Your task to perform on an android device: delete a single message in the gmail app Image 0: 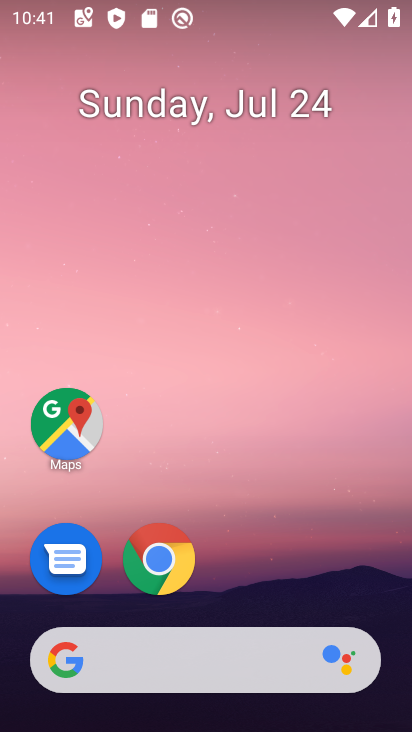
Step 0: drag from (252, 608) to (360, 5)
Your task to perform on an android device: delete a single message in the gmail app Image 1: 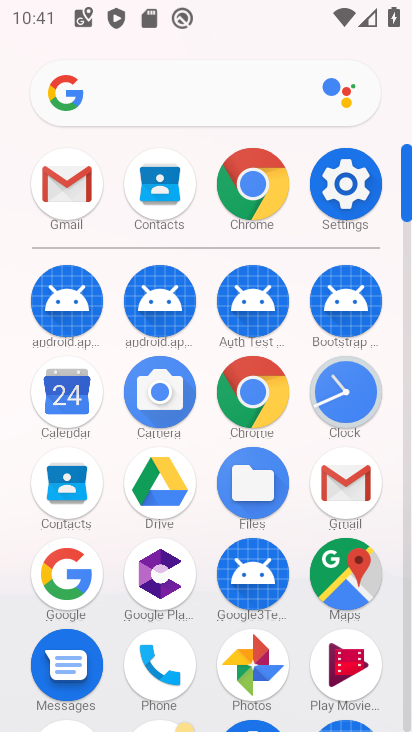
Step 1: click (72, 180)
Your task to perform on an android device: delete a single message in the gmail app Image 2: 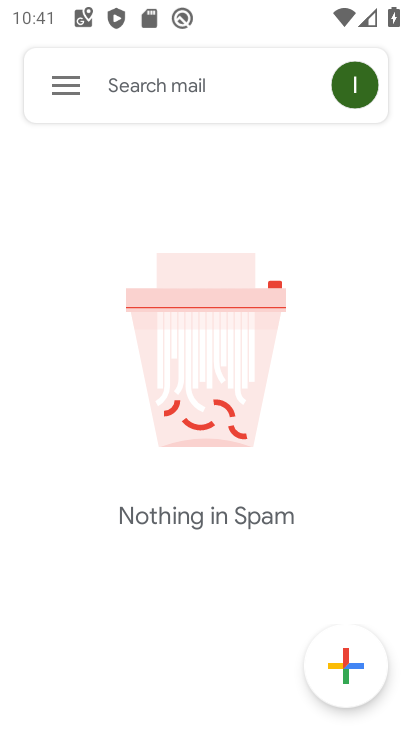
Step 2: click (63, 97)
Your task to perform on an android device: delete a single message in the gmail app Image 3: 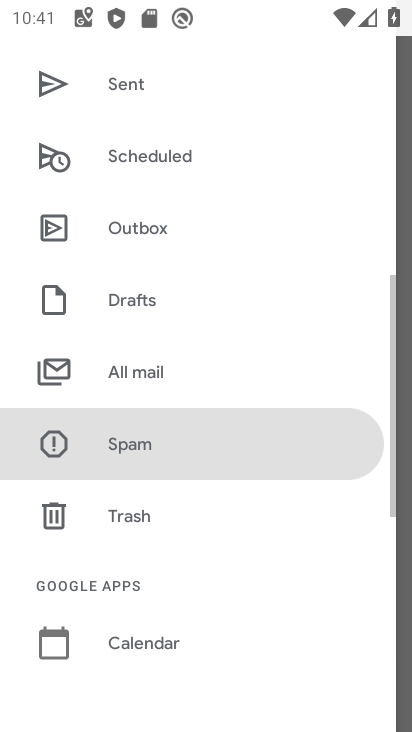
Step 3: click (169, 369)
Your task to perform on an android device: delete a single message in the gmail app Image 4: 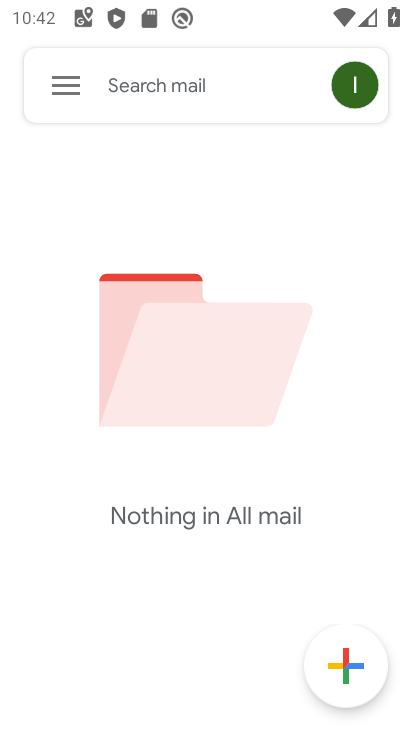
Step 4: task complete